Your task to perform on an android device: What's the weather going to be this weekend? Image 0: 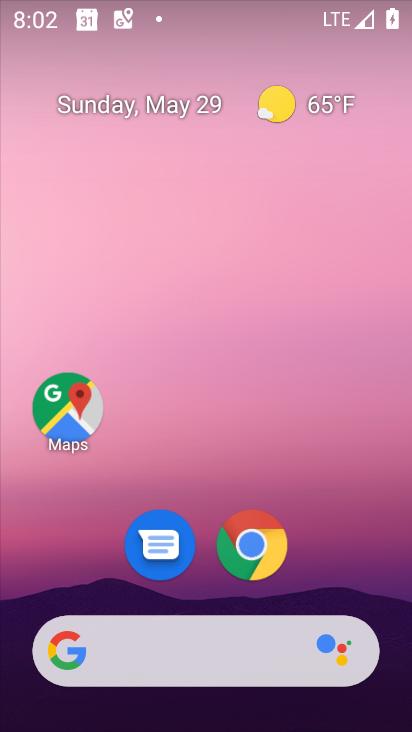
Step 0: drag from (227, 544) to (279, 210)
Your task to perform on an android device: What's the weather going to be this weekend? Image 1: 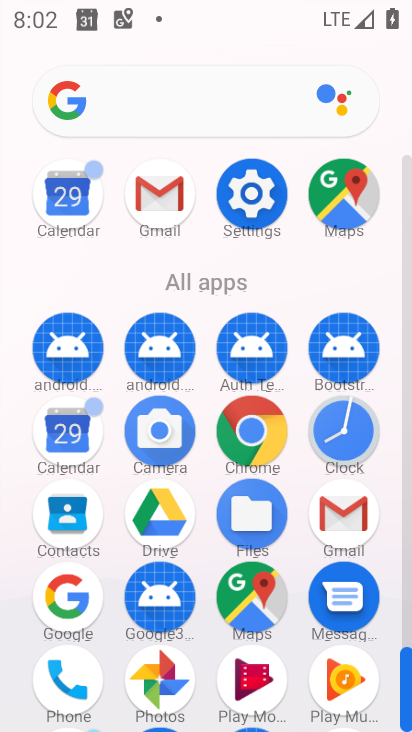
Step 1: click (77, 430)
Your task to perform on an android device: What's the weather going to be this weekend? Image 2: 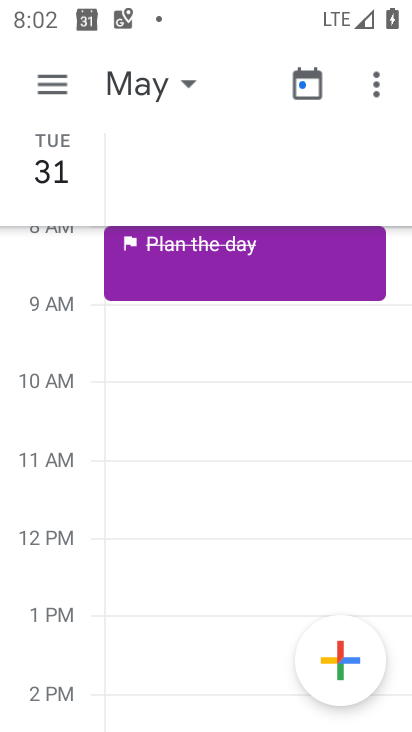
Step 2: click (191, 84)
Your task to perform on an android device: What's the weather going to be this weekend? Image 3: 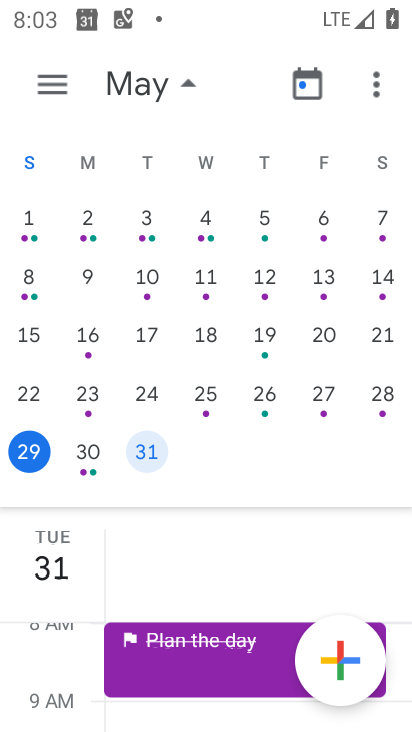
Step 3: drag from (382, 371) to (87, 384)
Your task to perform on an android device: What's the weather going to be this weekend? Image 4: 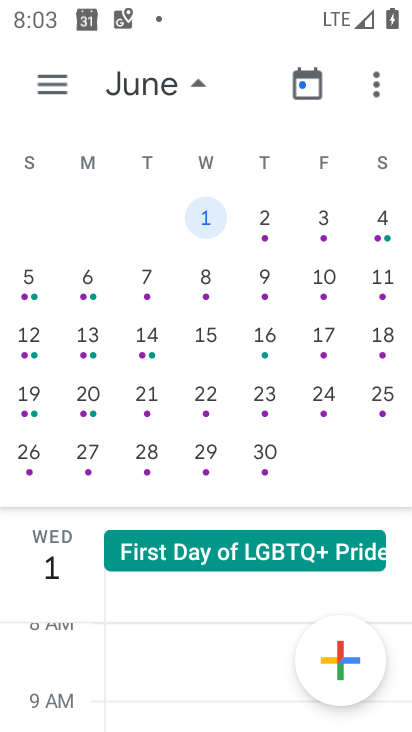
Step 4: click (328, 216)
Your task to perform on an android device: What's the weather going to be this weekend? Image 5: 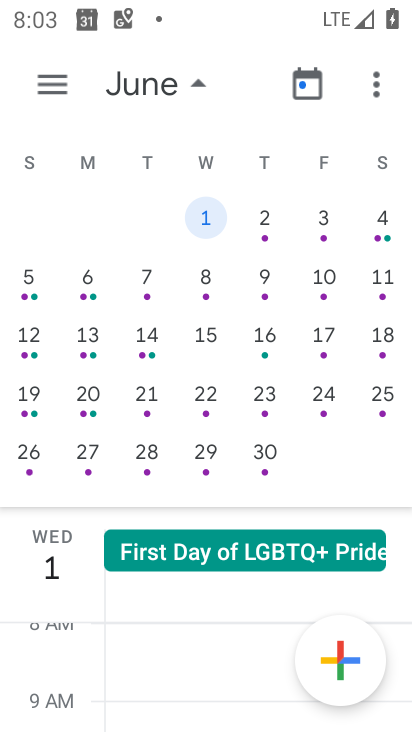
Step 5: click (379, 213)
Your task to perform on an android device: What's the weather going to be this weekend? Image 6: 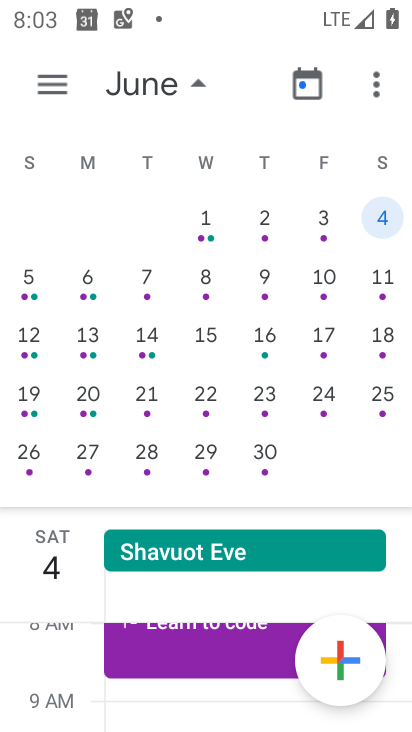
Step 6: click (26, 279)
Your task to perform on an android device: What's the weather going to be this weekend? Image 7: 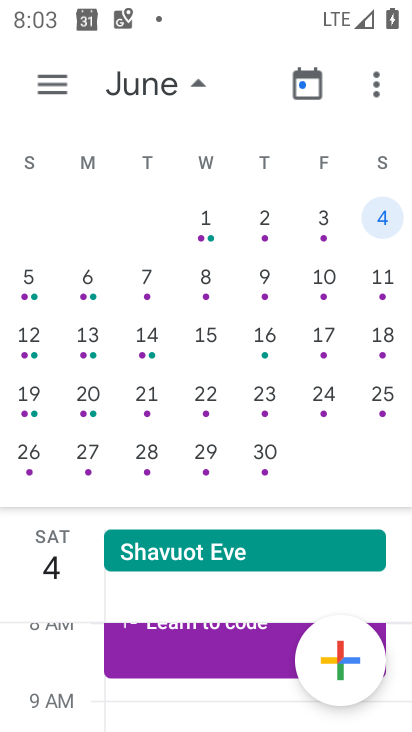
Step 7: click (31, 288)
Your task to perform on an android device: What's the weather going to be this weekend? Image 8: 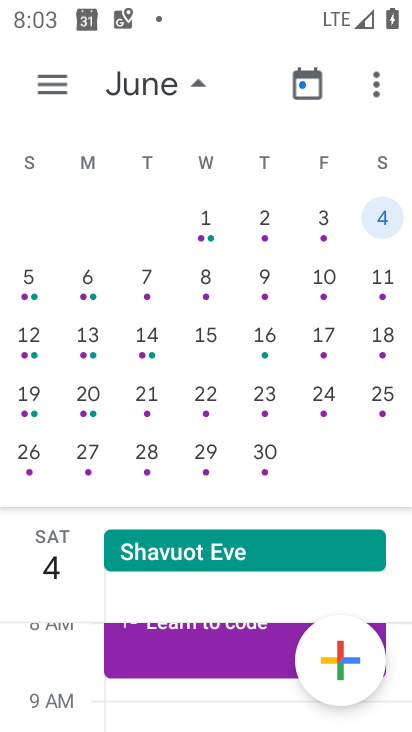
Step 8: task complete